Your task to perform on an android device: check google app version Image 0: 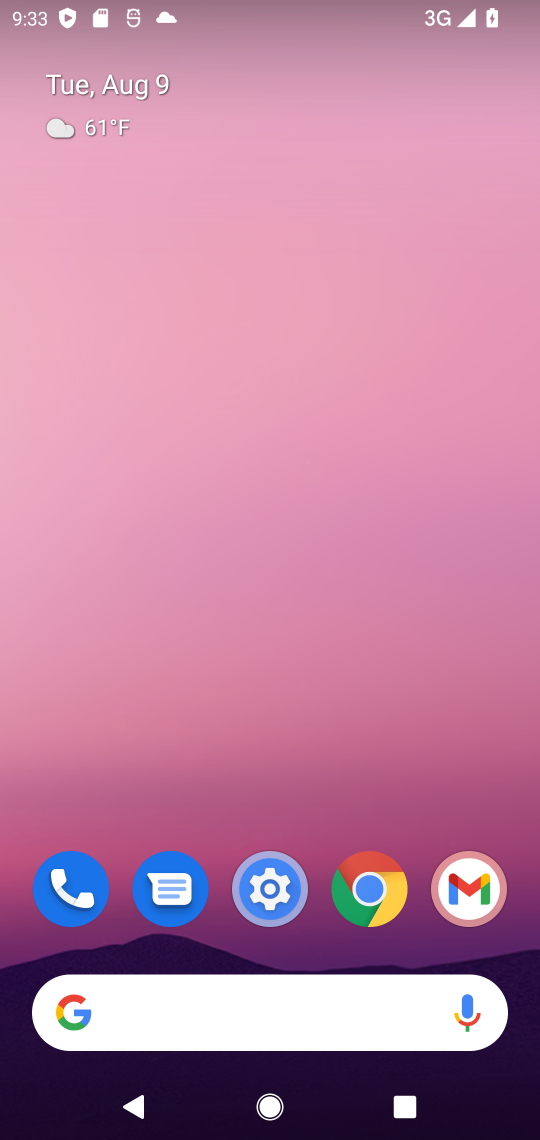
Step 0: drag from (343, 687) to (16, 395)
Your task to perform on an android device: check google app version Image 1: 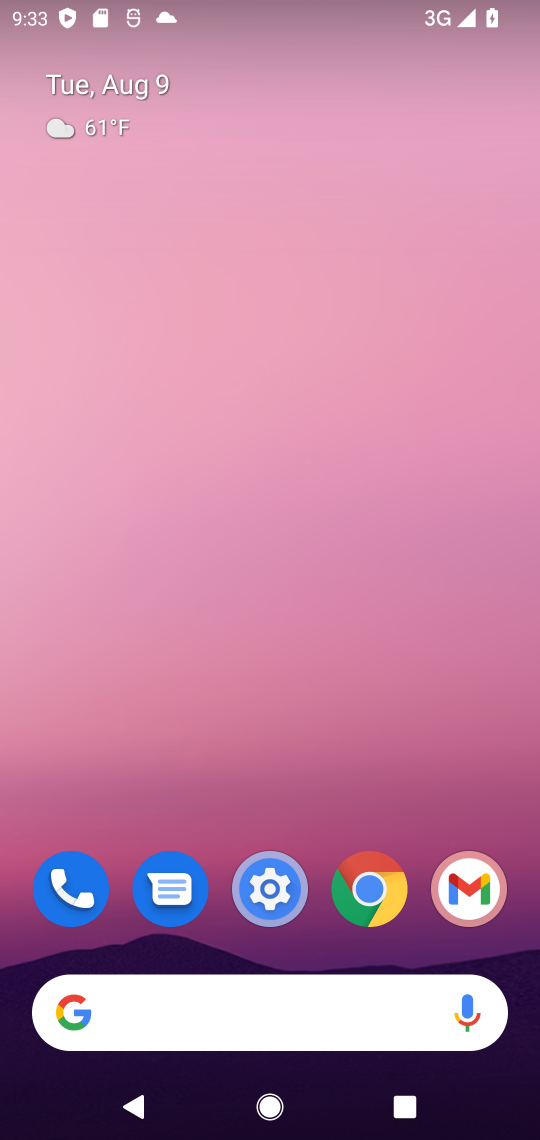
Step 1: drag from (346, 892) to (283, 170)
Your task to perform on an android device: check google app version Image 2: 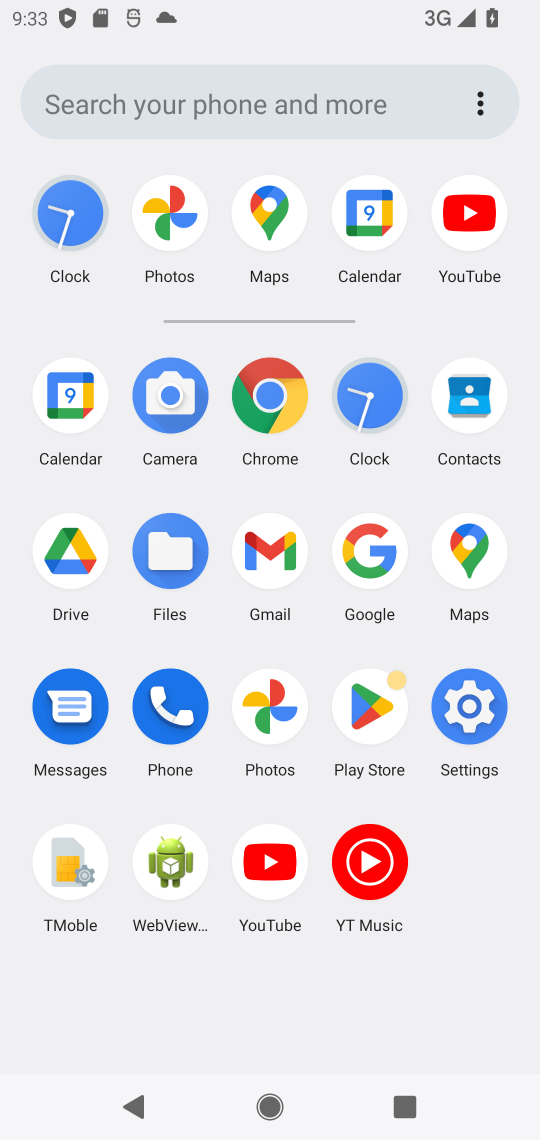
Step 2: click (351, 558)
Your task to perform on an android device: check google app version Image 3: 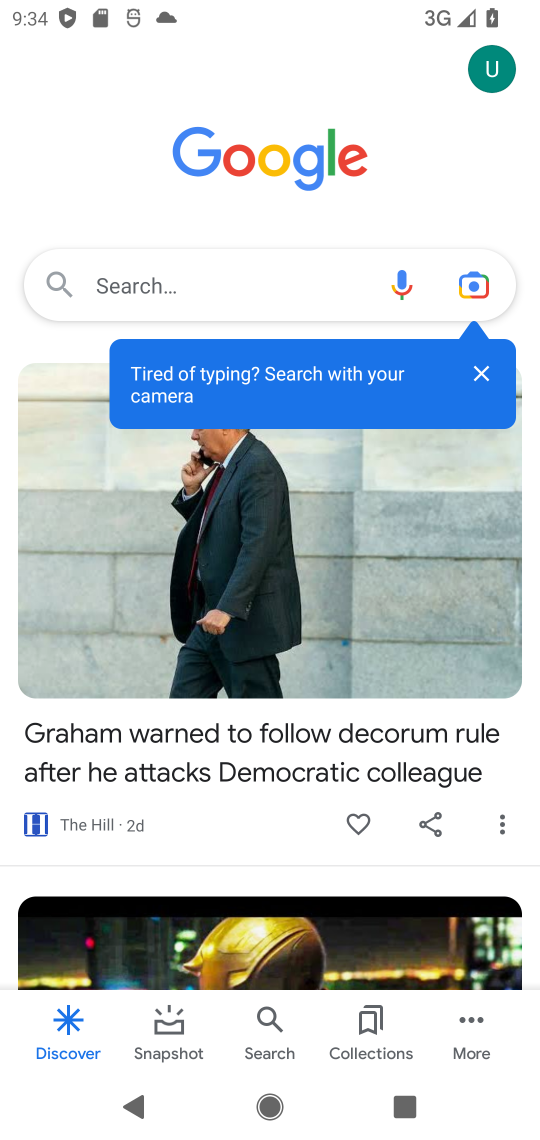
Step 3: click (472, 1015)
Your task to perform on an android device: check google app version Image 4: 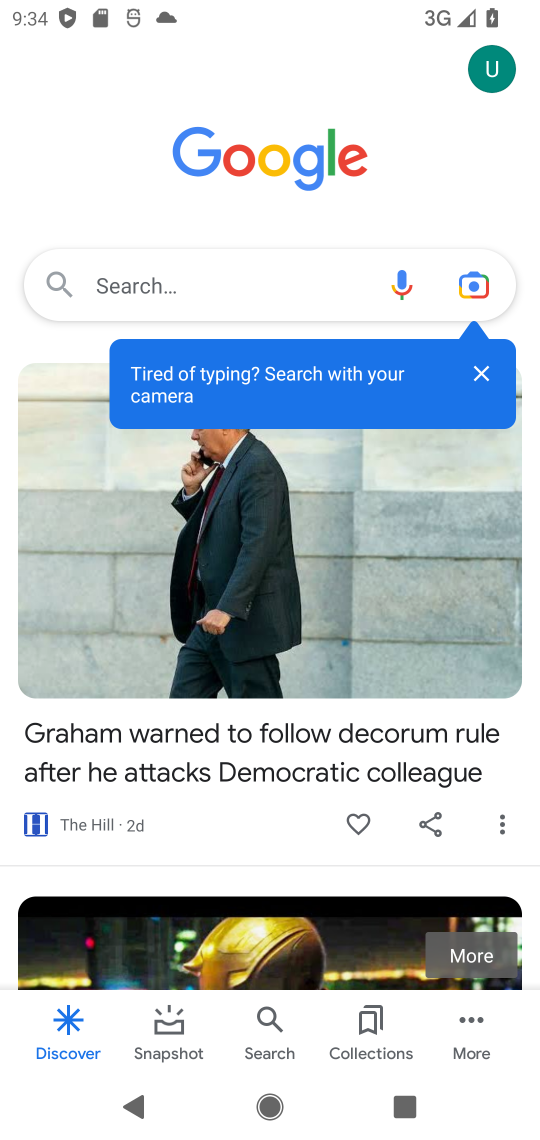
Step 4: click (476, 1046)
Your task to perform on an android device: check google app version Image 5: 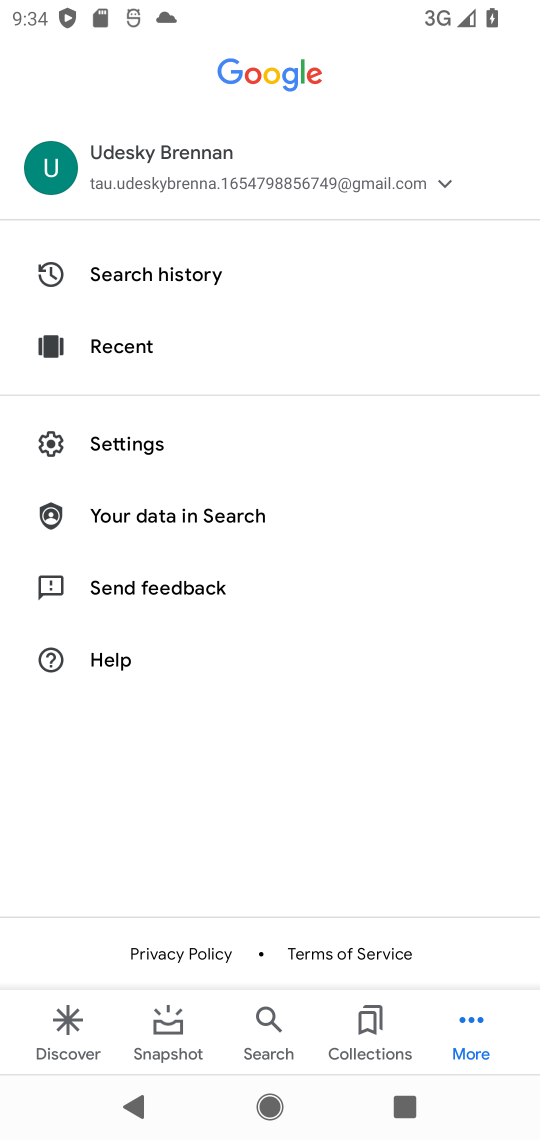
Step 5: click (105, 444)
Your task to perform on an android device: check google app version Image 6: 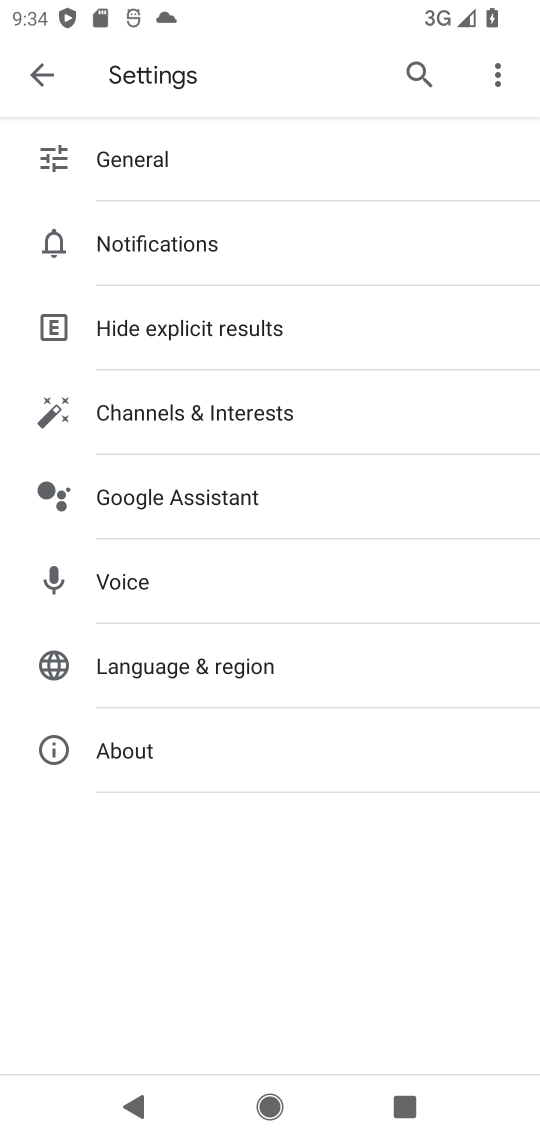
Step 6: click (281, 762)
Your task to perform on an android device: check google app version Image 7: 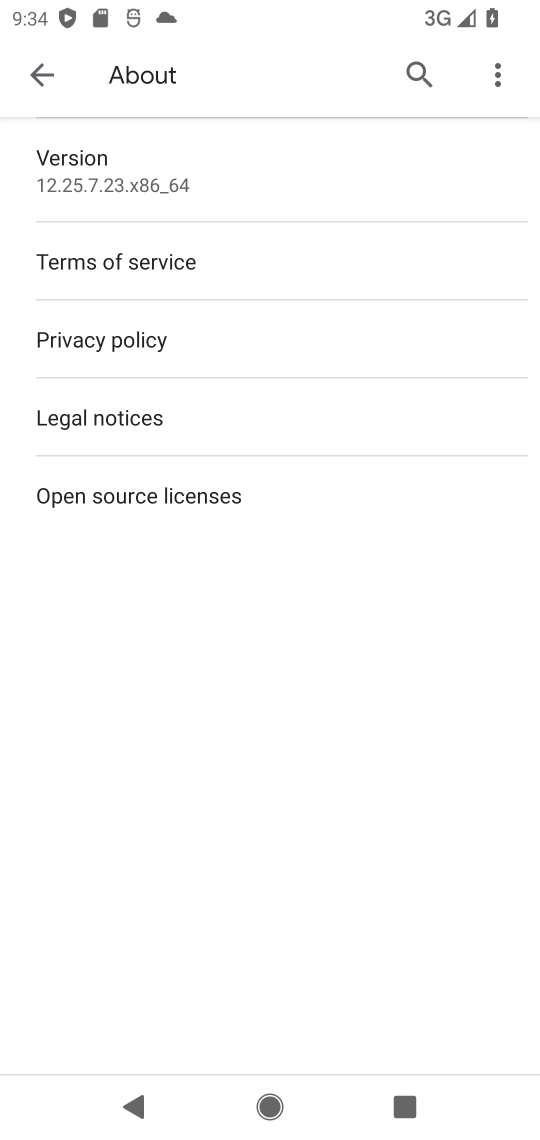
Step 7: click (139, 195)
Your task to perform on an android device: check google app version Image 8: 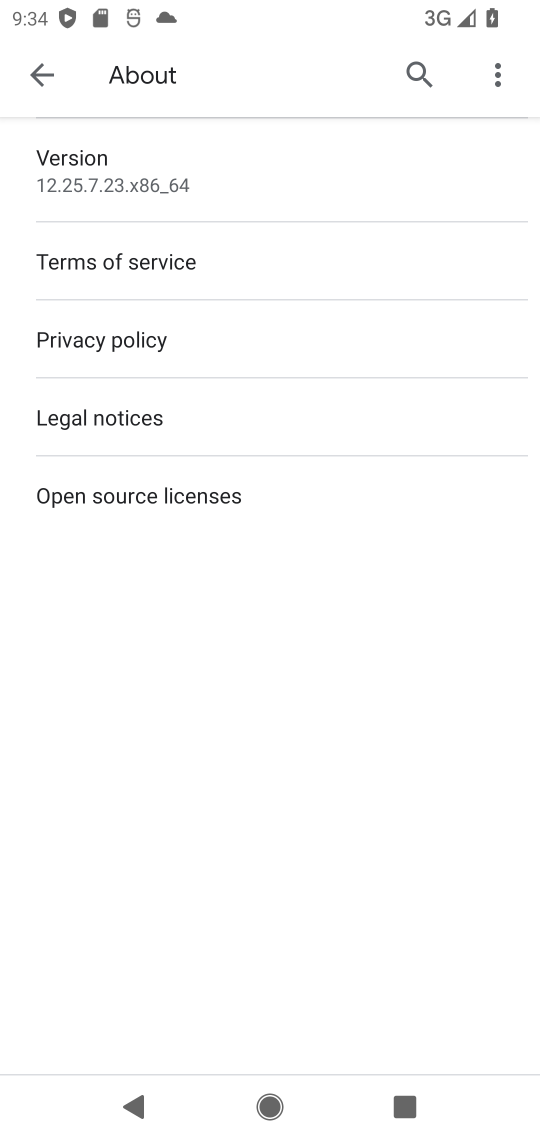
Step 8: click (262, 208)
Your task to perform on an android device: check google app version Image 9: 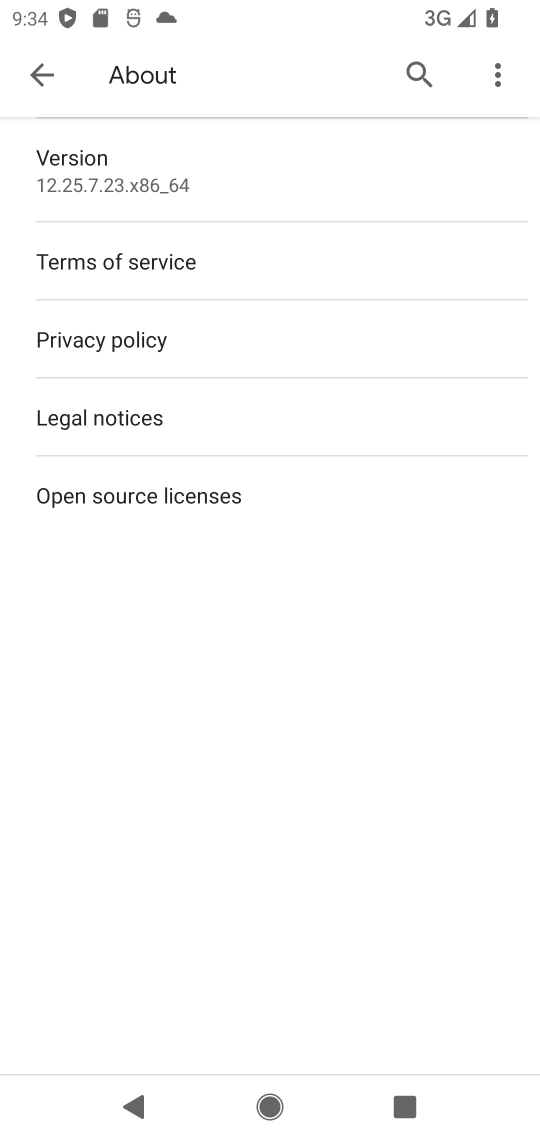
Step 9: task complete